Your task to perform on an android device: Open battery settings Image 0: 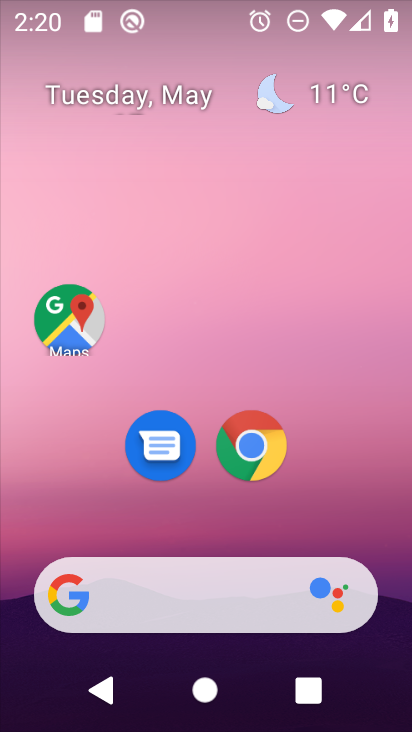
Step 0: drag from (319, 491) to (284, 2)
Your task to perform on an android device: Open battery settings Image 1: 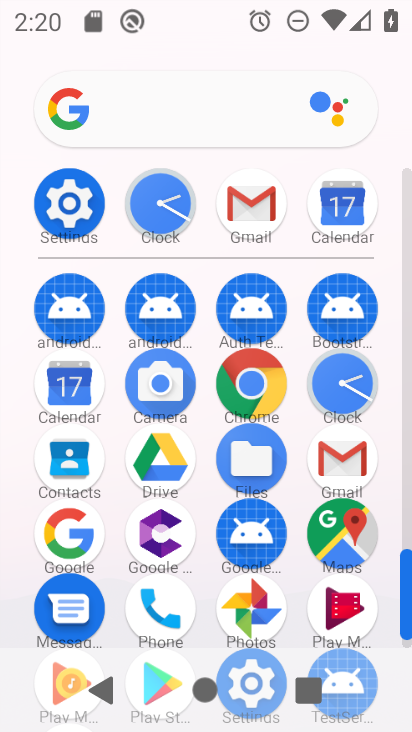
Step 1: click (69, 186)
Your task to perform on an android device: Open battery settings Image 2: 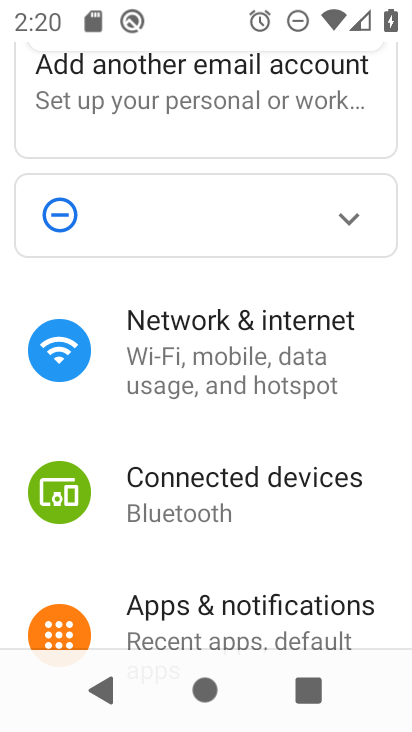
Step 2: drag from (252, 542) to (230, 273)
Your task to perform on an android device: Open battery settings Image 3: 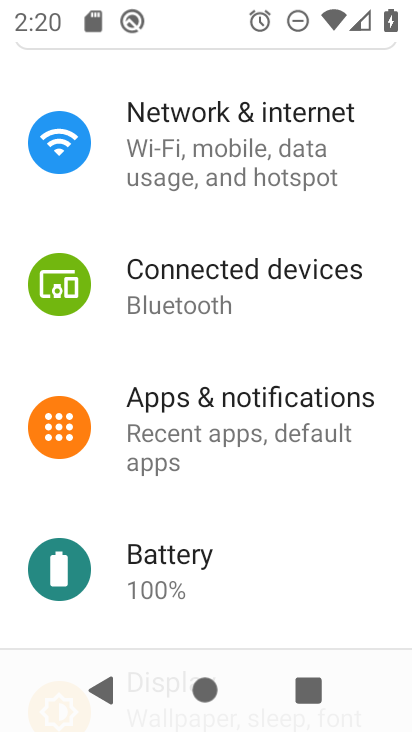
Step 3: click (229, 604)
Your task to perform on an android device: Open battery settings Image 4: 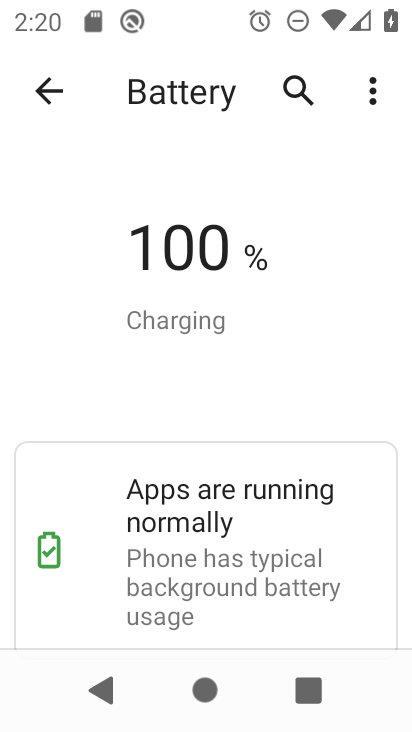
Step 4: task complete